Your task to perform on an android device: set an alarm Image 0: 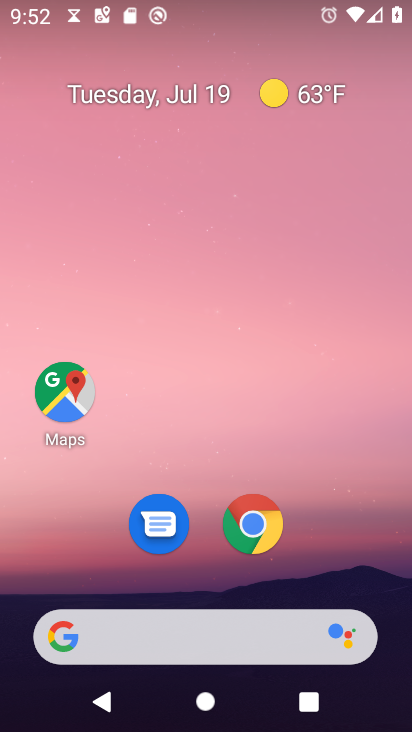
Step 0: drag from (192, 594) to (324, 54)
Your task to perform on an android device: set an alarm Image 1: 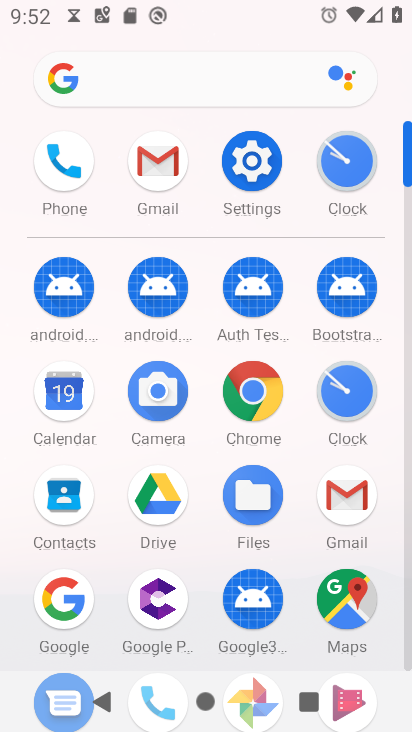
Step 1: click (341, 166)
Your task to perform on an android device: set an alarm Image 2: 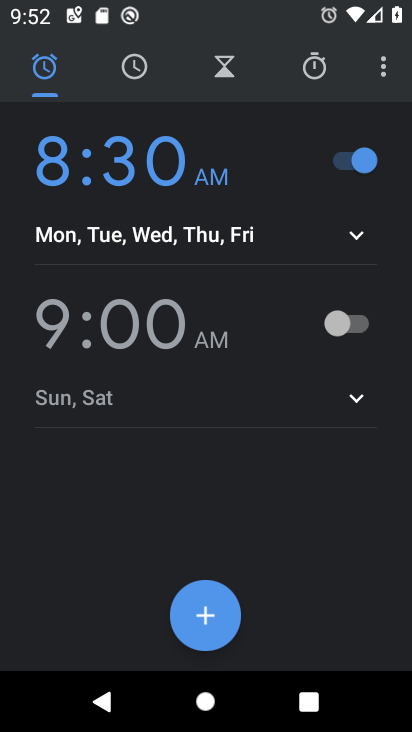
Step 2: click (347, 331)
Your task to perform on an android device: set an alarm Image 3: 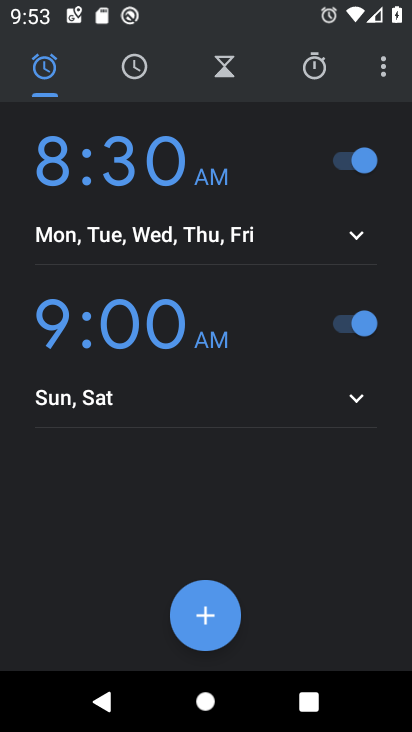
Step 3: task complete